Your task to perform on an android device: open wifi settings Image 0: 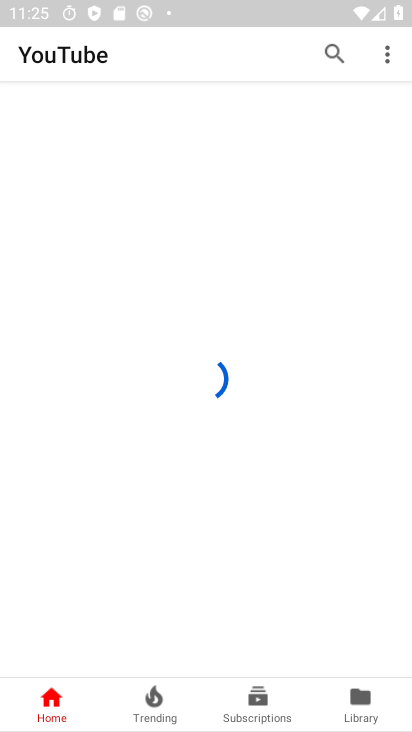
Step 0: drag from (257, 696) to (182, 225)
Your task to perform on an android device: open wifi settings Image 1: 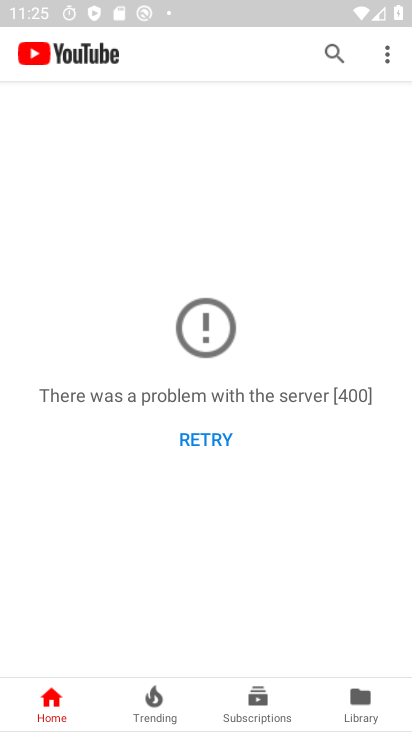
Step 1: press back button
Your task to perform on an android device: open wifi settings Image 2: 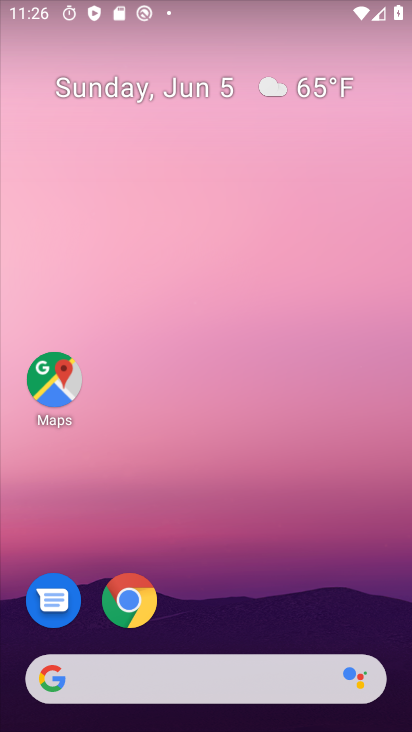
Step 2: drag from (229, 623) to (121, 0)
Your task to perform on an android device: open wifi settings Image 3: 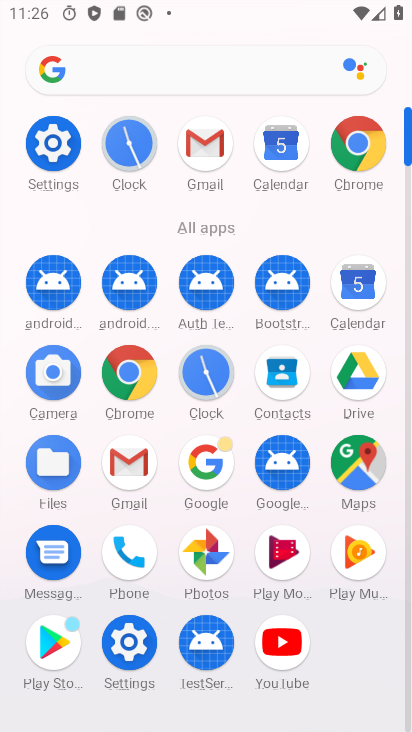
Step 3: click (53, 155)
Your task to perform on an android device: open wifi settings Image 4: 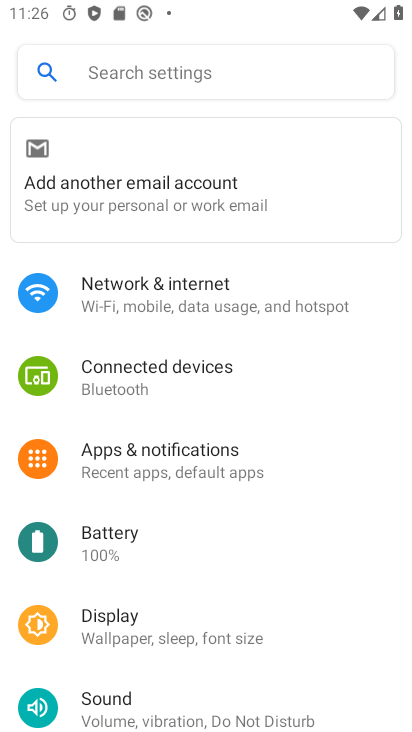
Step 4: task complete